Your task to perform on an android device: change notifications settings Image 0: 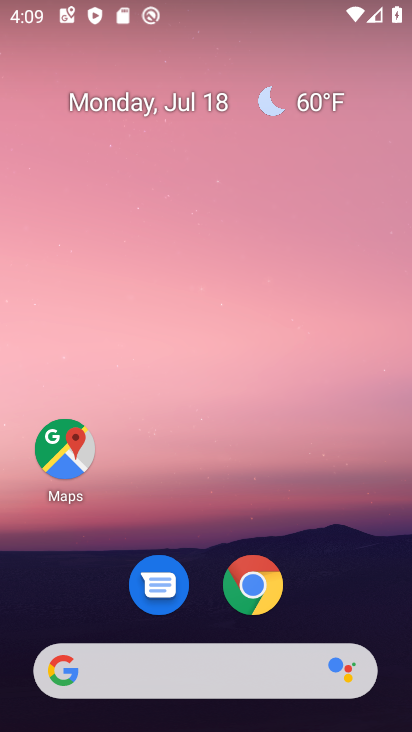
Step 0: drag from (344, 573) to (370, 41)
Your task to perform on an android device: change notifications settings Image 1: 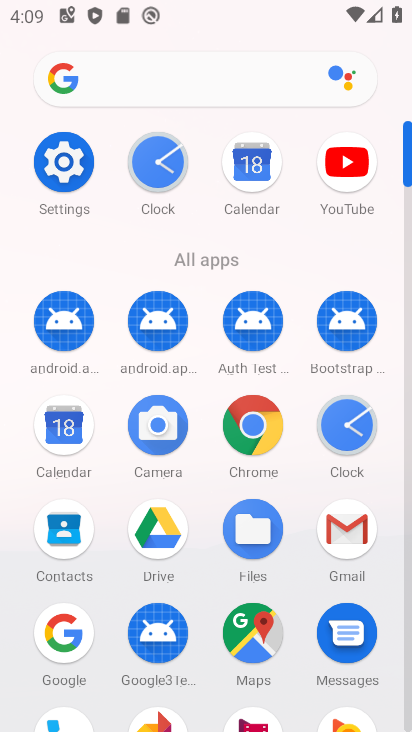
Step 1: click (65, 164)
Your task to perform on an android device: change notifications settings Image 2: 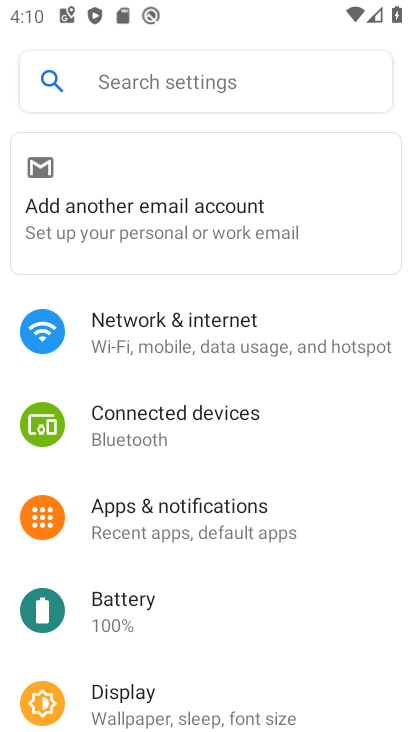
Step 2: click (197, 513)
Your task to perform on an android device: change notifications settings Image 3: 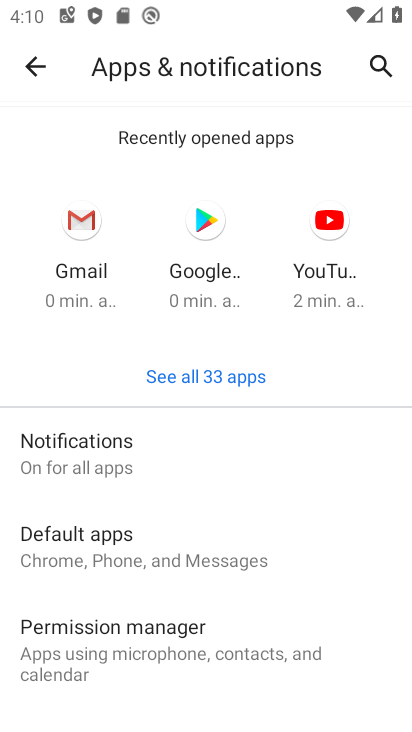
Step 3: click (118, 450)
Your task to perform on an android device: change notifications settings Image 4: 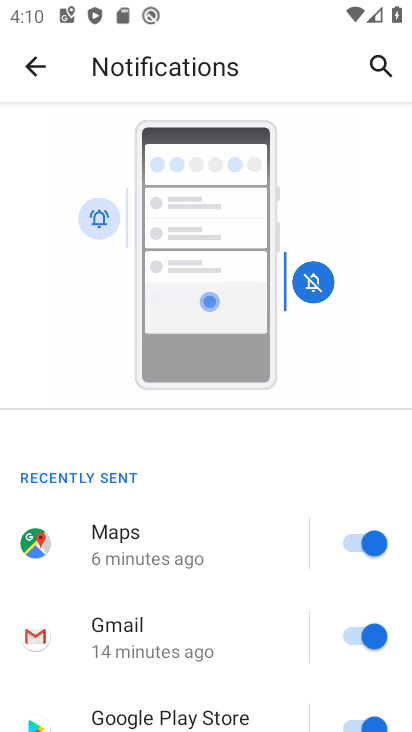
Step 4: drag from (227, 621) to (308, 185)
Your task to perform on an android device: change notifications settings Image 5: 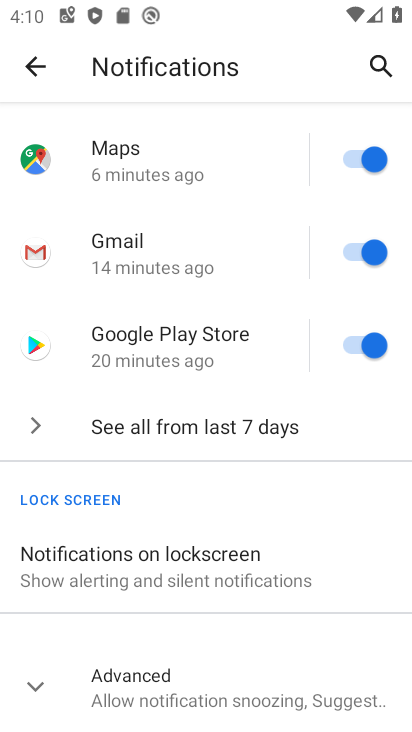
Step 5: click (261, 422)
Your task to perform on an android device: change notifications settings Image 6: 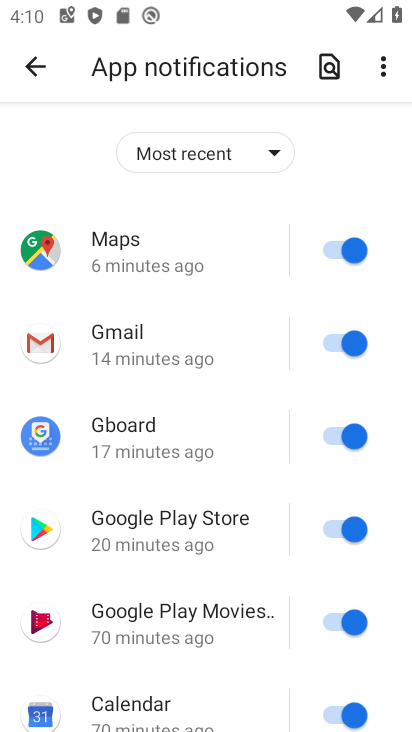
Step 6: click (348, 253)
Your task to perform on an android device: change notifications settings Image 7: 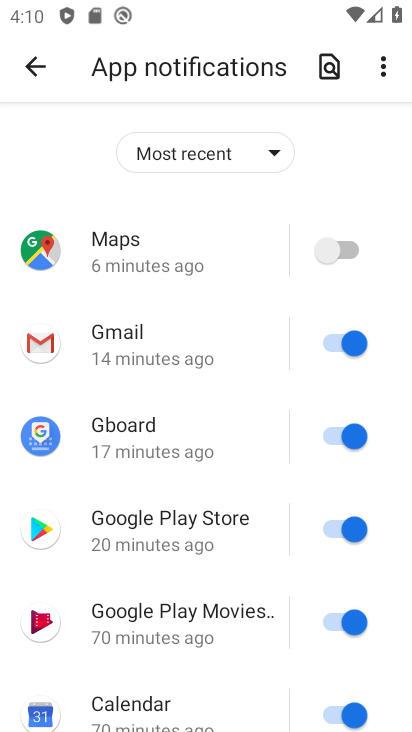
Step 7: click (346, 341)
Your task to perform on an android device: change notifications settings Image 8: 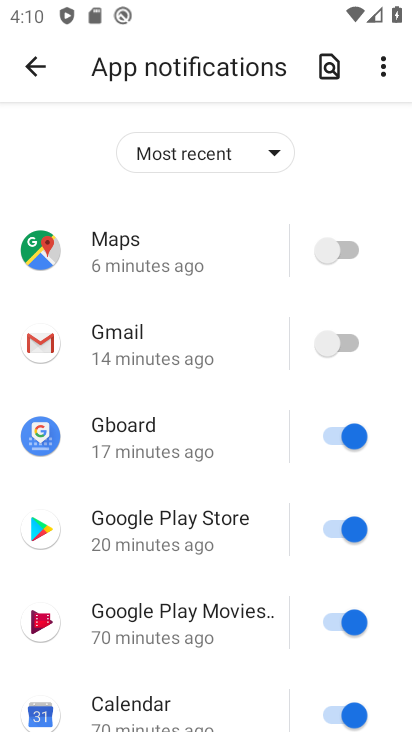
Step 8: click (343, 436)
Your task to perform on an android device: change notifications settings Image 9: 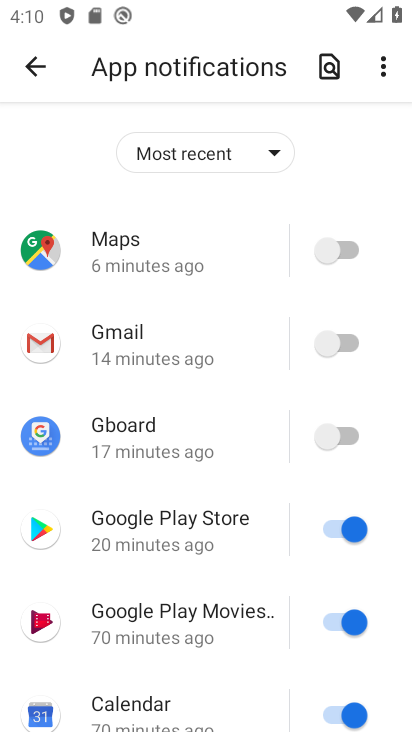
Step 9: click (340, 526)
Your task to perform on an android device: change notifications settings Image 10: 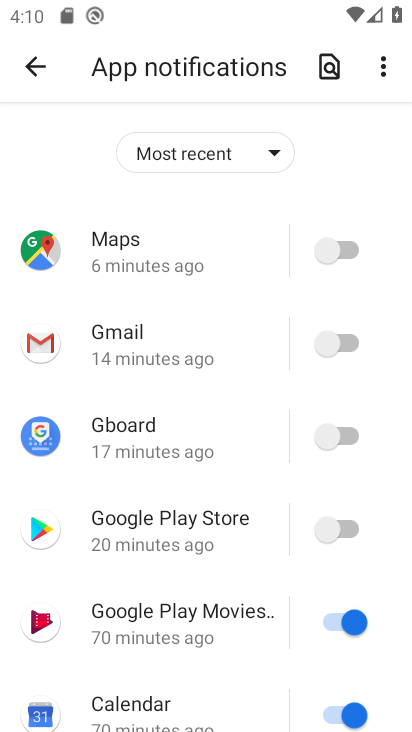
Step 10: click (338, 609)
Your task to perform on an android device: change notifications settings Image 11: 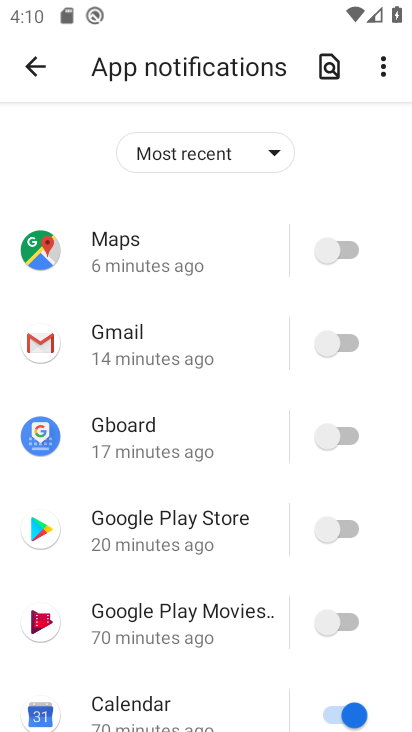
Step 11: drag from (237, 654) to (287, 116)
Your task to perform on an android device: change notifications settings Image 12: 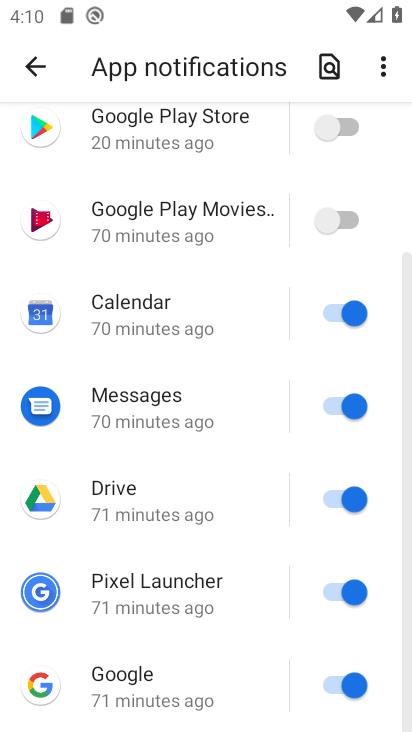
Step 12: click (340, 318)
Your task to perform on an android device: change notifications settings Image 13: 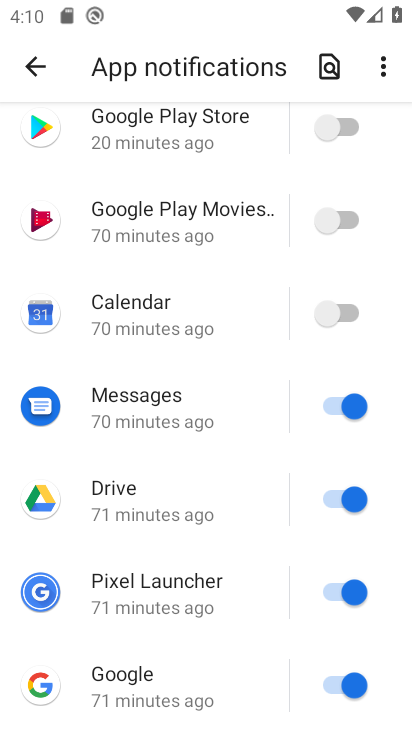
Step 13: click (343, 408)
Your task to perform on an android device: change notifications settings Image 14: 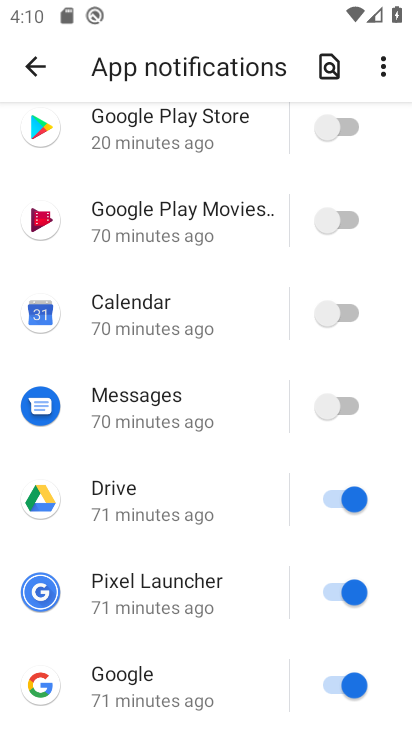
Step 14: click (343, 490)
Your task to perform on an android device: change notifications settings Image 15: 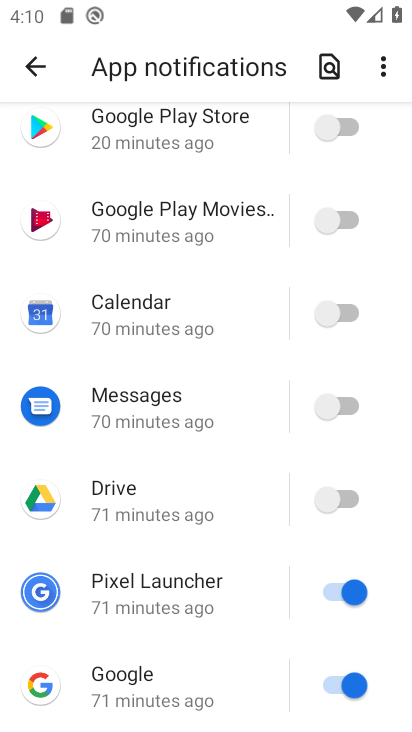
Step 15: click (338, 581)
Your task to perform on an android device: change notifications settings Image 16: 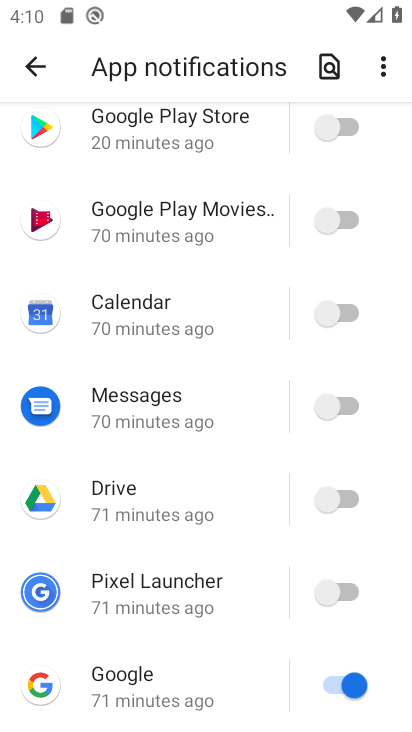
Step 16: click (343, 683)
Your task to perform on an android device: change notifications settings Image 17: 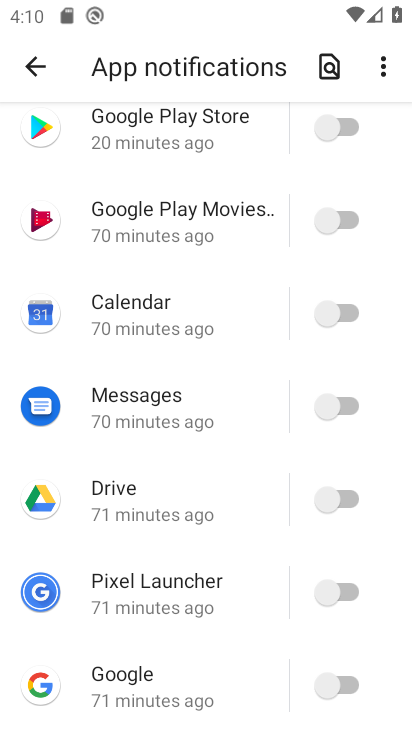
Step 17: task complete